Your task to perform on an android device: Open wifi settings Image 0: 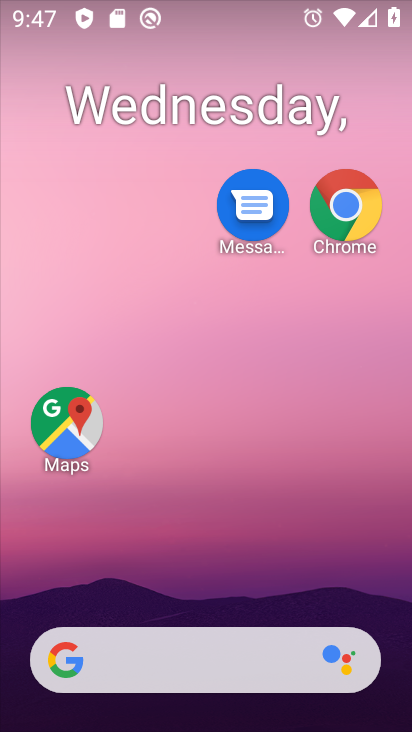
Step 0: drag from (226, 567) to (281, 216)
Your task to perform on an android device: Open wifi settings Image 1: 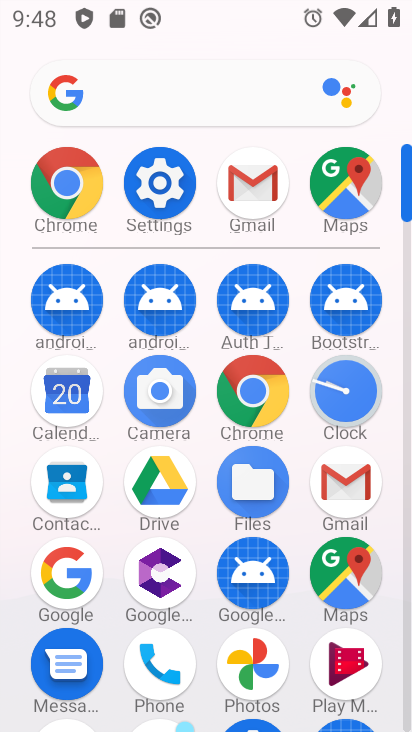
Step 1: click (173, 192)
Your task to perform on an android device: Open wifi settings Image 2: 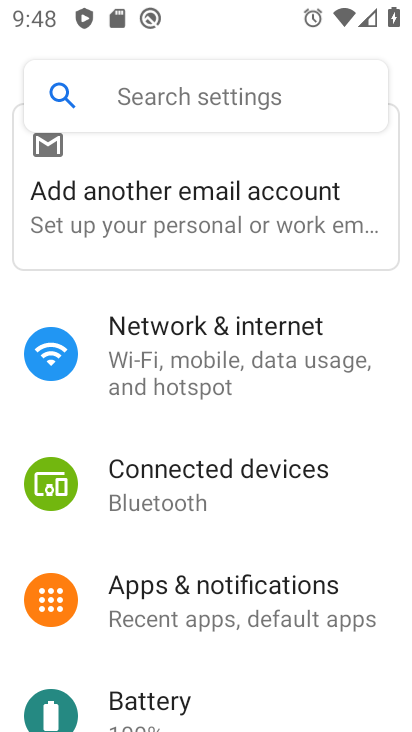
Step 2: click (250, 369)
Your task to perform on an android device: Open wifi settings Image 3: 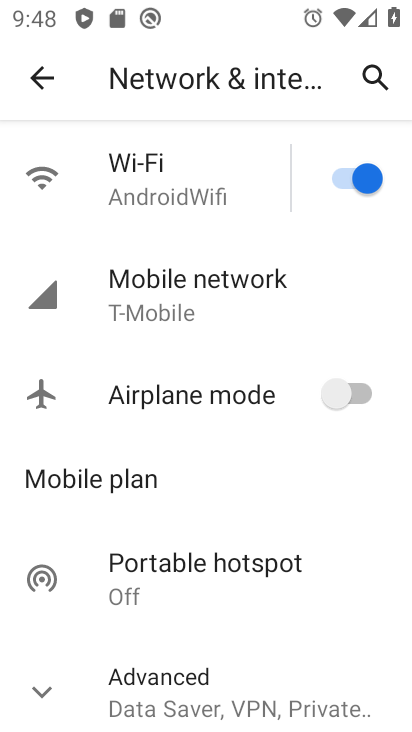
Step 3: click (268, 195)
Your task to perform on an android device: Open wifi settings Image 4: 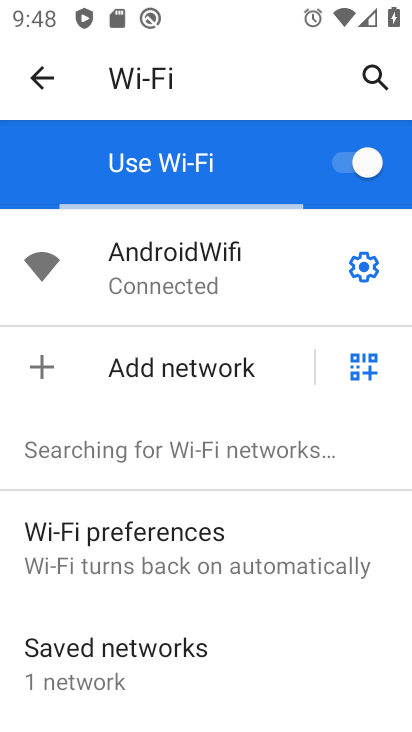
Step 4: task complete